Your task to perform on an android device: Open Yahoo.com Image 0: 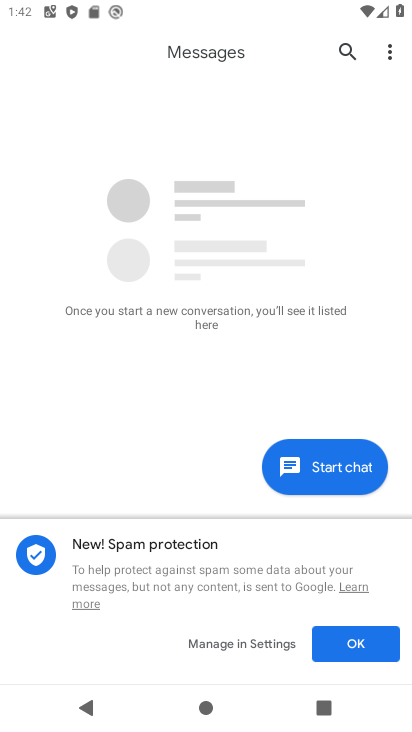
Step 0: press home button
Your task to perform on an android device: Open Yahoo.com Image 1: 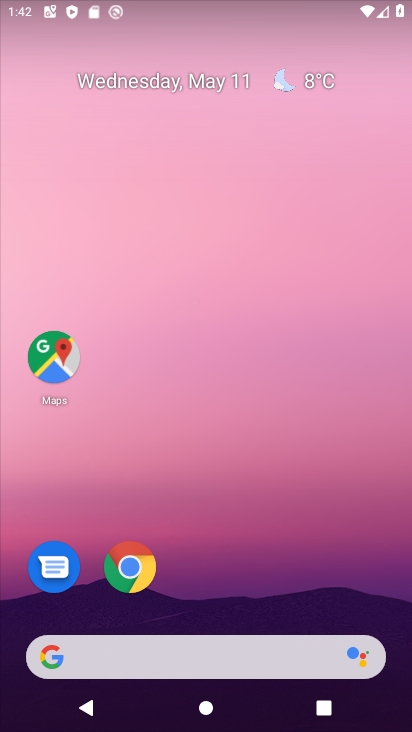
Step 1: click (144, 559)
Your task to perform on an android device: Open Yahoo.com Image 2: 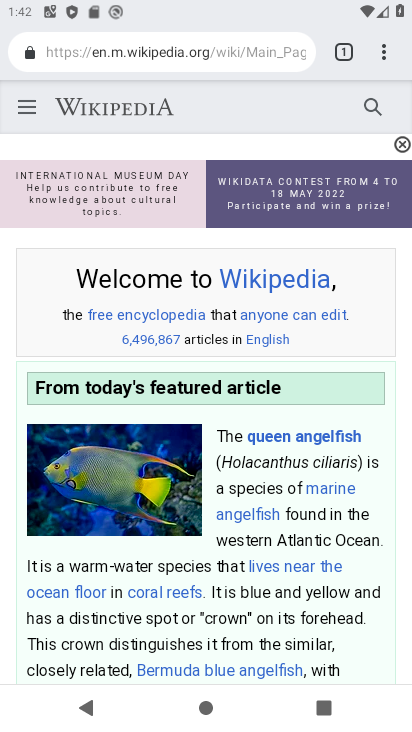
Step 2: click (217, 58)
Your task to perform on an android device: Open Yahoo.com Image 3: 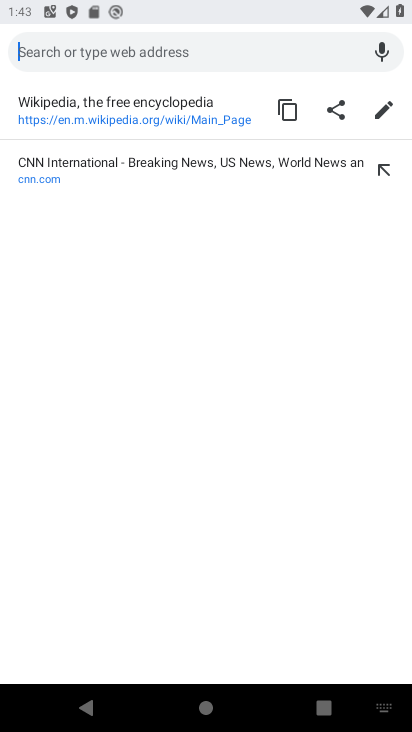
Step 3: type "yahoo.com"
Your task to perform on an android device: Open Yahoo.com Image 4: 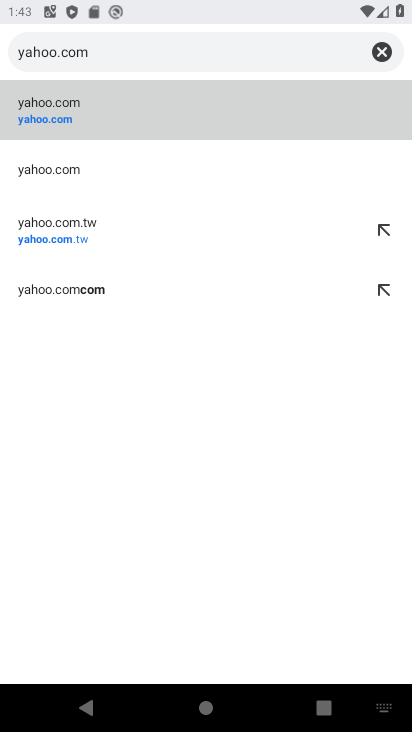
Step 4: click (241, 114)
Your task to perform on an android device: Open Yahoo.com Image 5: 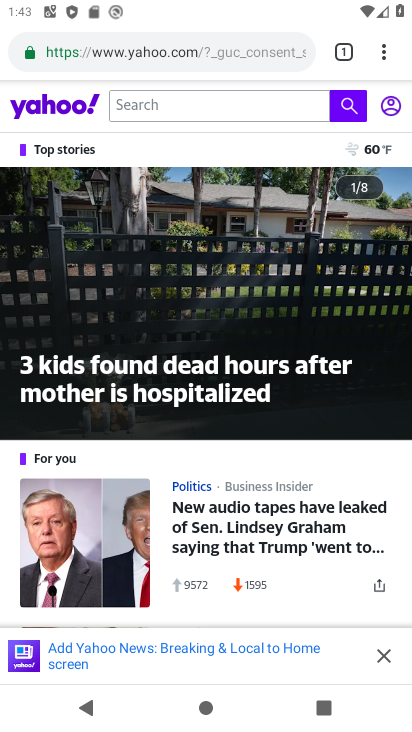
Step 5: task complete